Your task to perform on an android device: open a new tab in the chrome app Image 0: 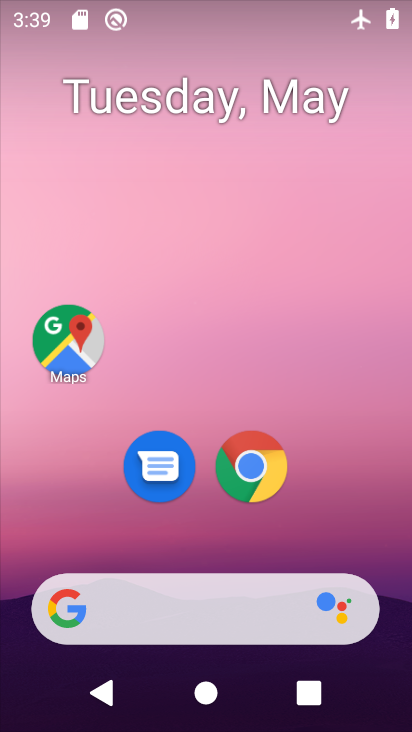
Step 0: drag from (297, 463) to (316, 129)
Your task to perform on an android device: open a new tab in the chrome app Image 1: 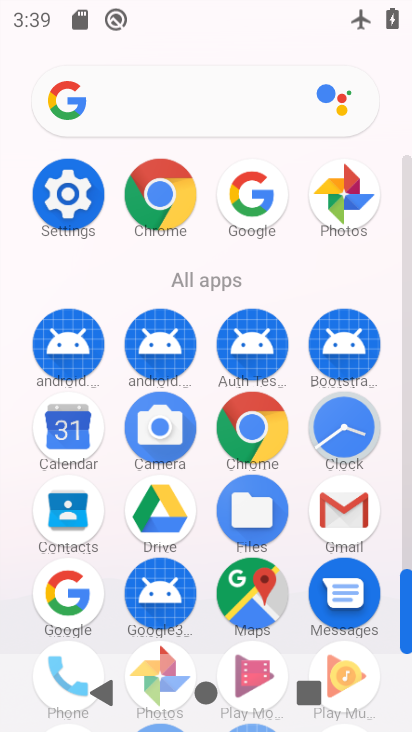
Step 1: click (258, 430)
Your task to perform on an android device: open a new tab in the chrome app Image 2: 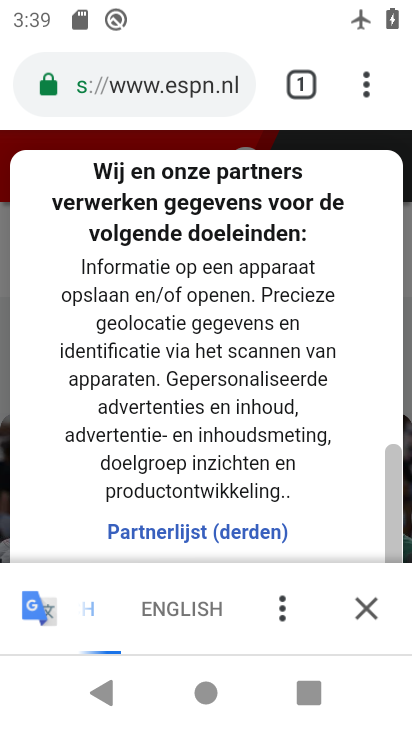
Step 2: drag from (328, 11) to (295, 450)
Your task to perform on an android device: open a new tab in the chrome app Image 3: 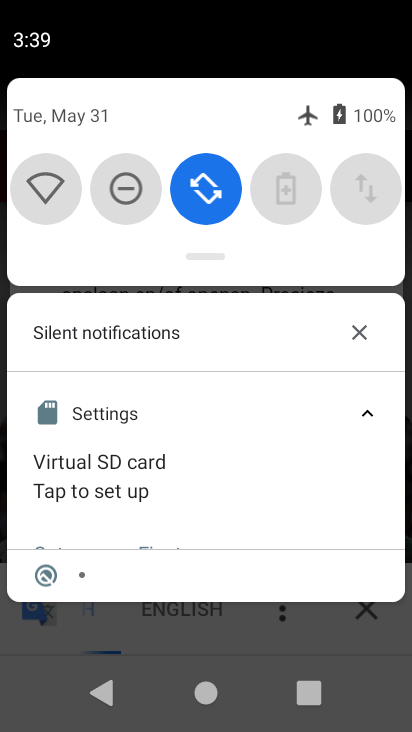
Step 3: drag from (347, 190) to (82, 198)
Your task to perform on an android device: open a new tab in the chrome app Image 4: 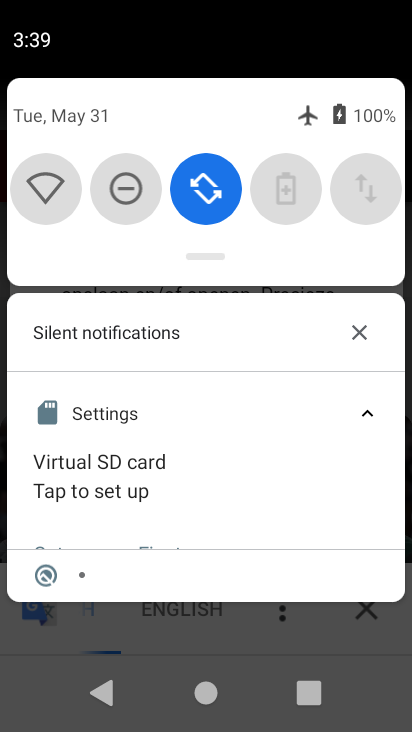
Step 4: drag from (328, 239) to (279, 565)
Your task to perform on an android device: open a new tab in the chrome app Image 5: 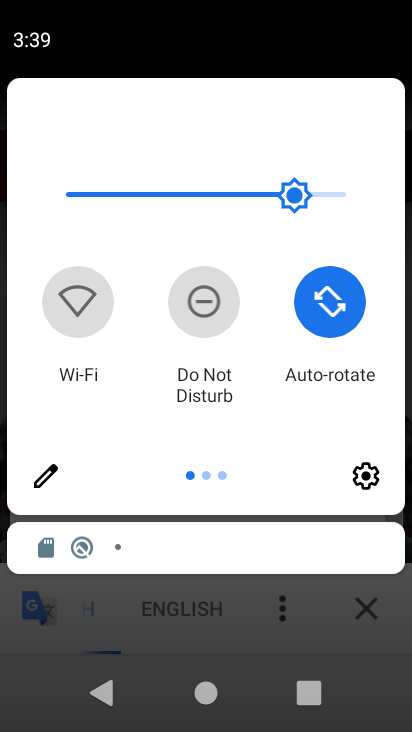
Step 5: drag from (356, 312) to (21, 323)
Your task to perform on an android device: open a new tab in the chrome app Image 6: 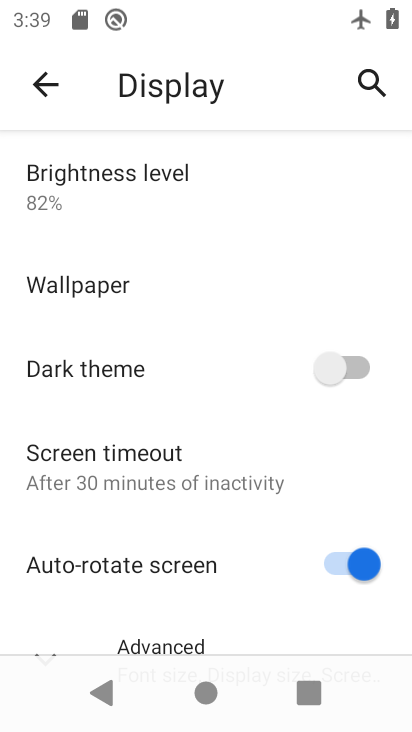
Step 6: click (36, 79)
Your task to perform on an android device: open a new tab in the chrome app Image 7: 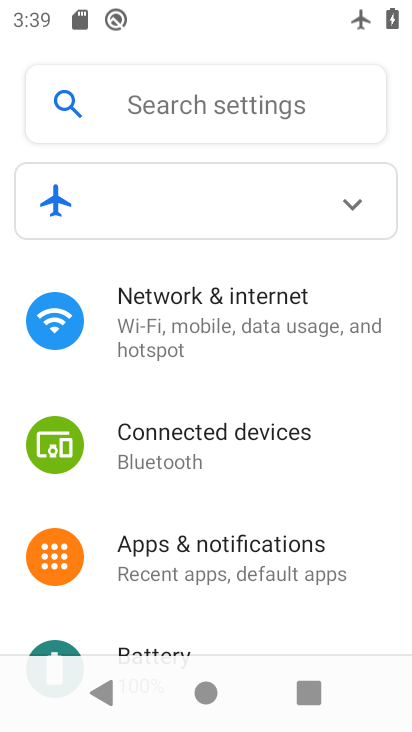
Step 7: press home button
Your task to perform on an android device: open a new tab in the chrome app Image 8: 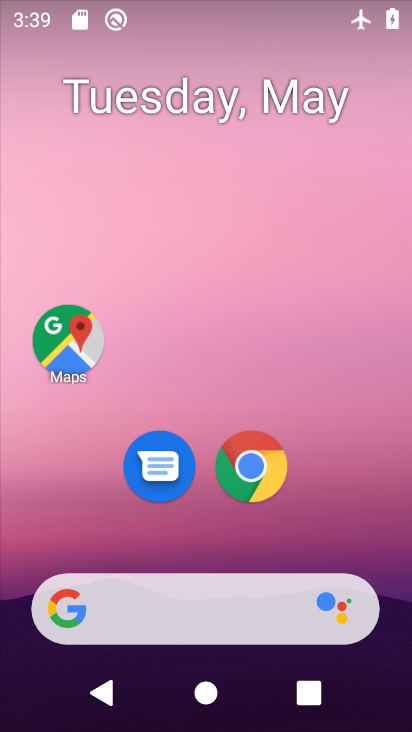
Step 8: drag from (287, 12) to (273, 545)
Your task to perform on an android device: open a new tab in the chrome app Image 9: 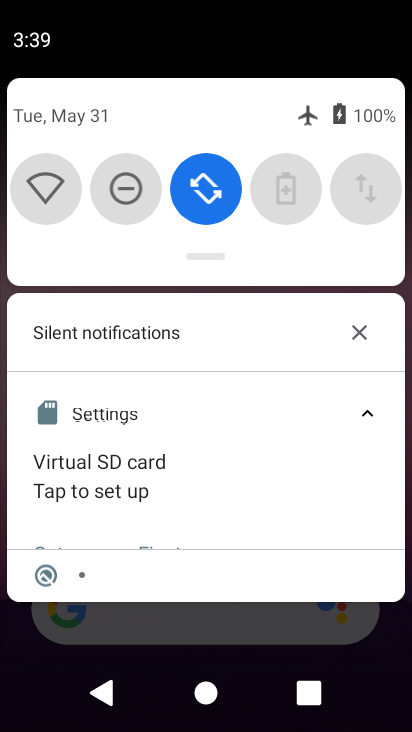
Step 9: drag from (317, 221) to (295, 623)
Your task to perform on an android device: open a new tab in the chrome app Image 10: 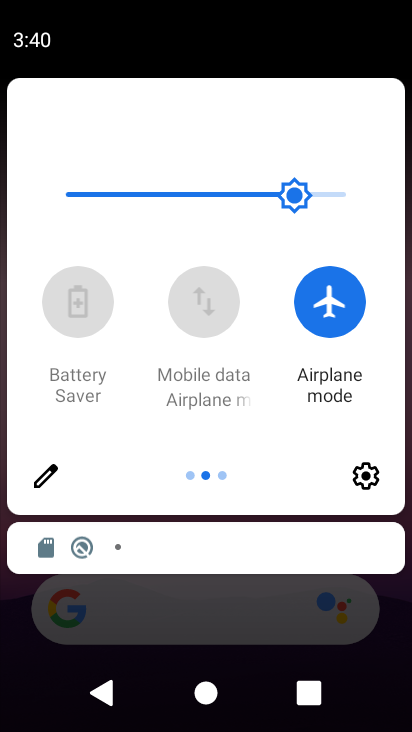
Step 10: click (330, 304)
Your task to perform on an android device: open a new tab in the chrome app Image 11: 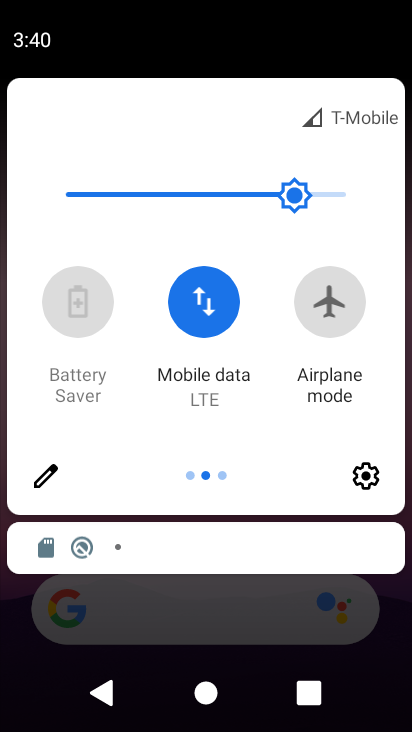
Step 11: click (387, 592)
Your task to perform on an android device: open a new tab in the chrome app Image 12: 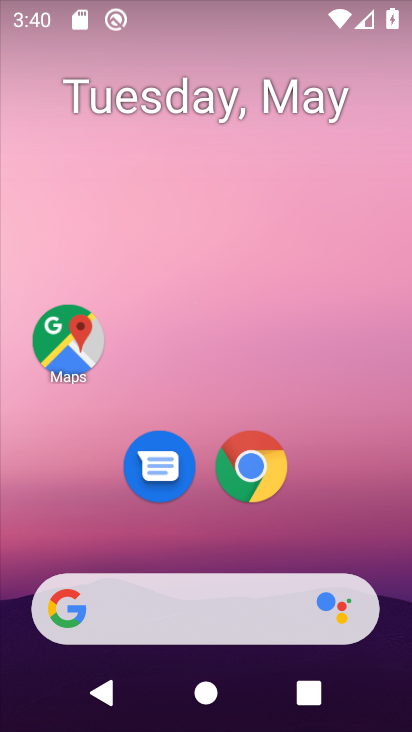
Step 12: drag from (292, 544) to (301, 71)
Your task to perform on an android device: open a new tab in the chrome app Image 13: 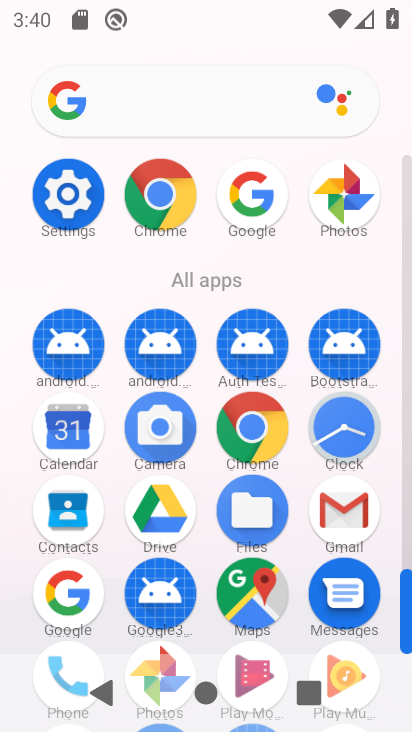
Step 13: click (245, 427)
Your task to perform on an android device: open a new tab in the chrome app Image 14: 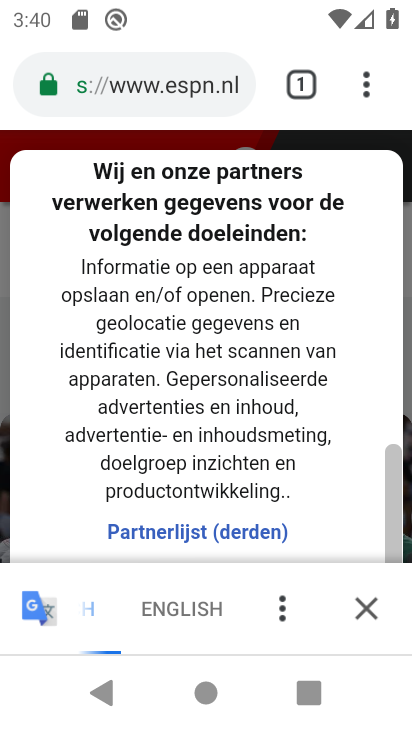
Step 14: task complete